Your task to perform on an android device: Show me popular games on the Play Store Image 0: 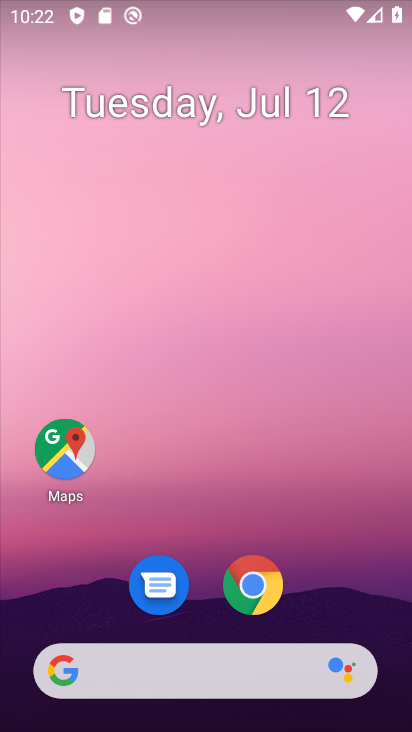
Step 0: drag from (278, 501) to (272, 37)
Your task to perform on an android device: Show me popular games on the Play Store Image 1: 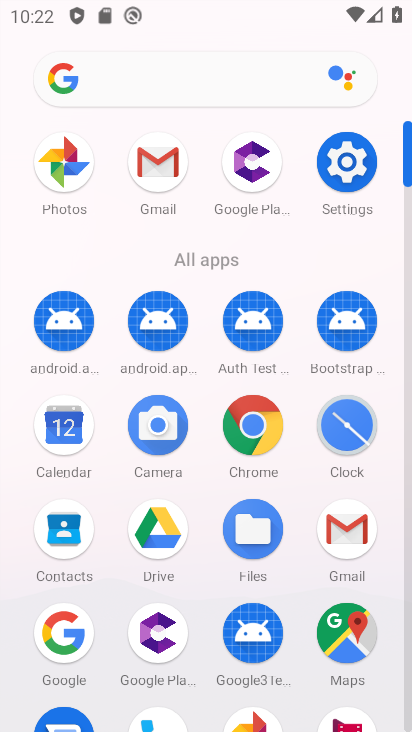
Step 1: drag from (202, 558) to (201, 171)
Your task to perform on an android device: Show me popular games on the Play Store Image 2: 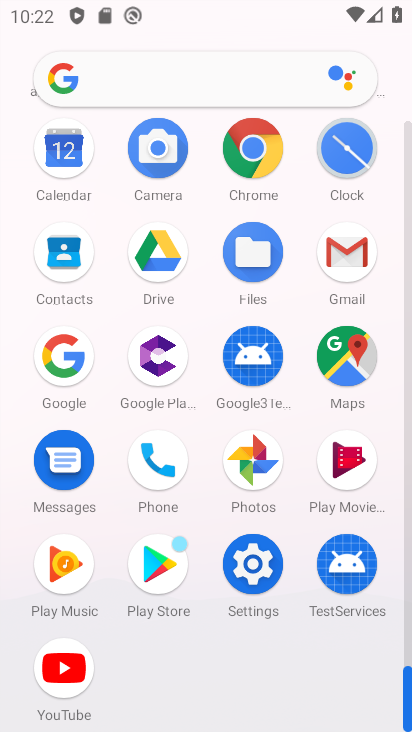
Step 2: click (175, 577)
Your task to perform on an android device: Show me popular games on the Play Store Image 3: 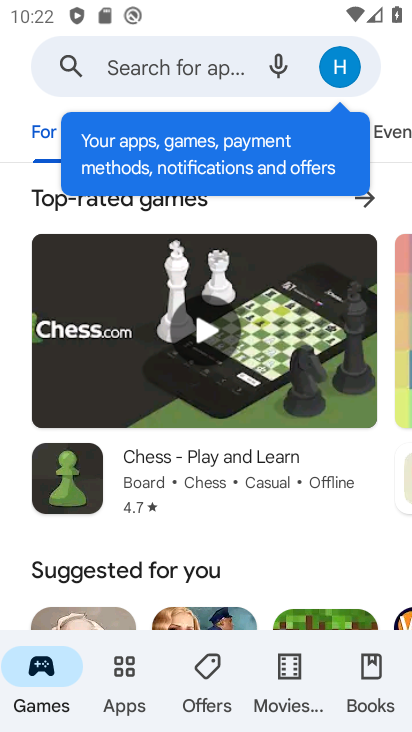
Step 3: drag from (250, 518) to (274, 237)
Your task to perform on an android device: Show me popular games on the Play Store Image 4: 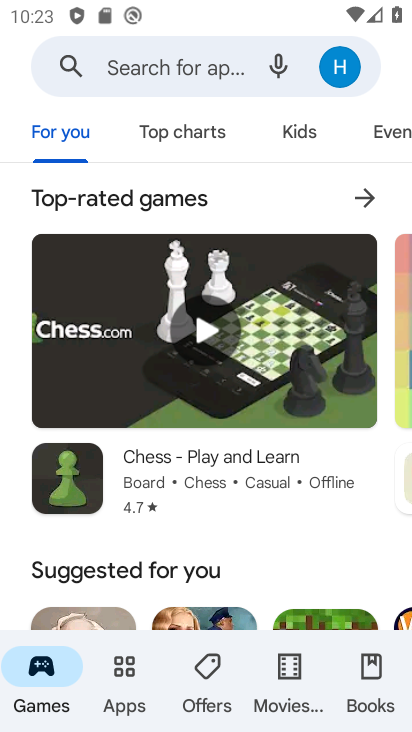
Step 4: drag from (279, 517) to (289, 114)
Your task to perform on an android device: Show me popular games on the Play Store Image 5: 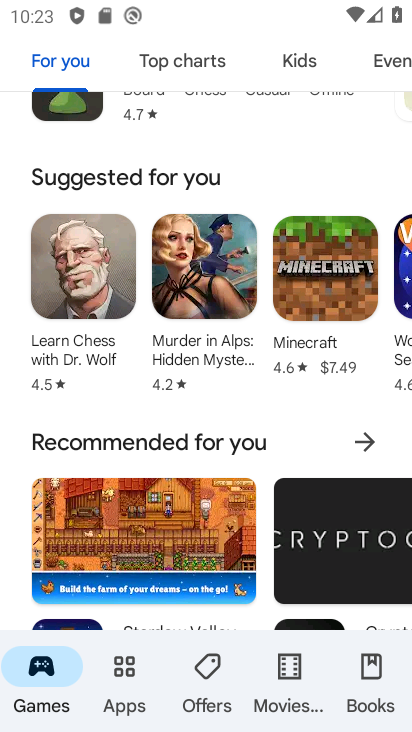
Step 5: drag from (283, 420) to (273, 79)
Your task to perform on an android device: Show me popular games on the Play Store Image 6: 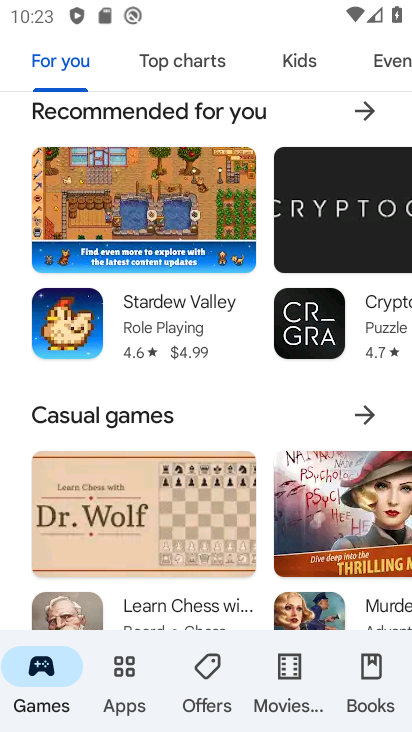
Step 6: drag from (236, 366) to (231, 105)
Your task to perform on an android device: Show me popular games on the Play Store Image 7: 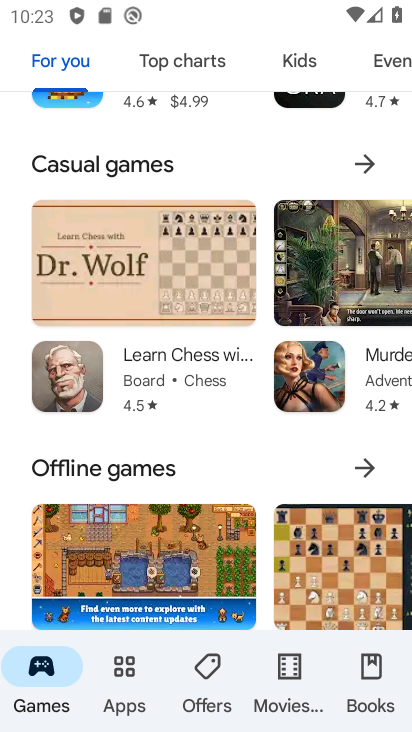
Step 7: drag from (236, 459) to (220, 115)
Your task to perform on an android device: Show me popular games on the Play Store Image 8: 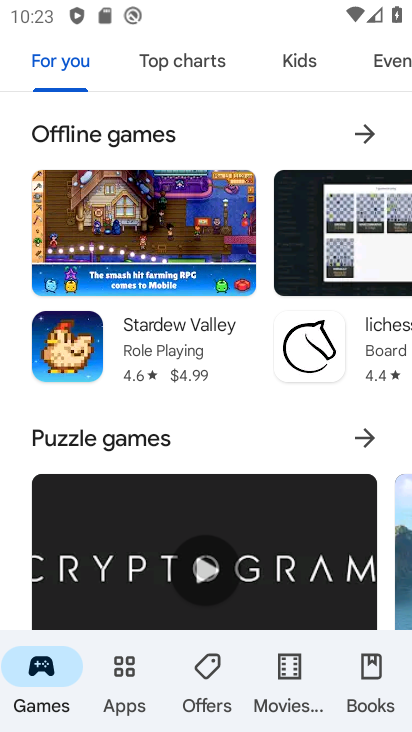
Step 8: drag from (231, 195) to (244, 476)
Your task to perform on an android device: Show me popular games on the Play Store Image 9: 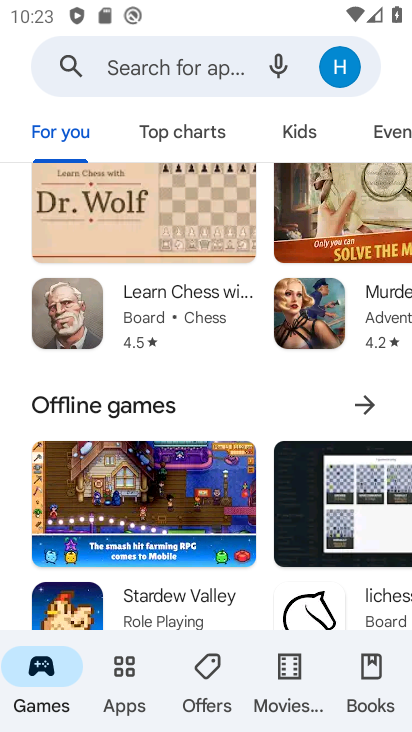
Step 9: drag from (247, 339) to (260, 591)
Your task to perform on an android device: Show me popular games on the Play Store Image 10: 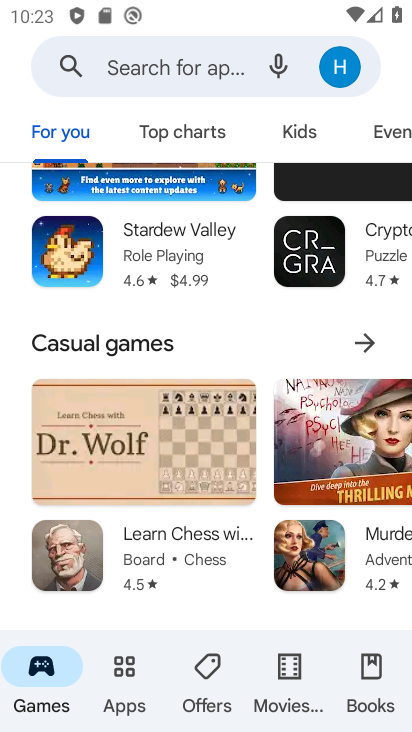
Step 10: drag from (245, 316) to (232, 606)
Your task to perform on an android device: Show me popular games on the Play Store Image 11: 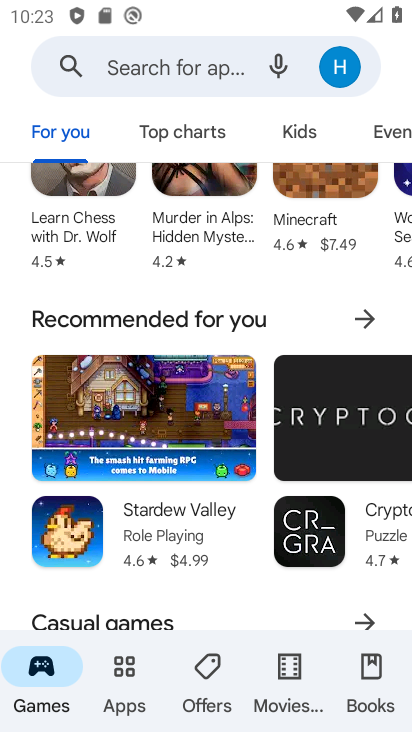
Step 11: drag from (264, 302) to (232, 654)
Your task to perform on an android device: Show me popular games on the Play Store Image 12: 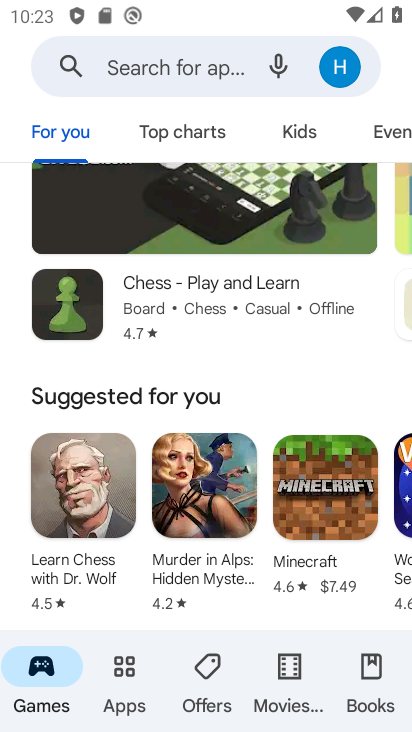
Step 12: drag from (273, 370) to (266, 648)
Your task to perform on an android device: Show me popular games on the Play Store Image 13: 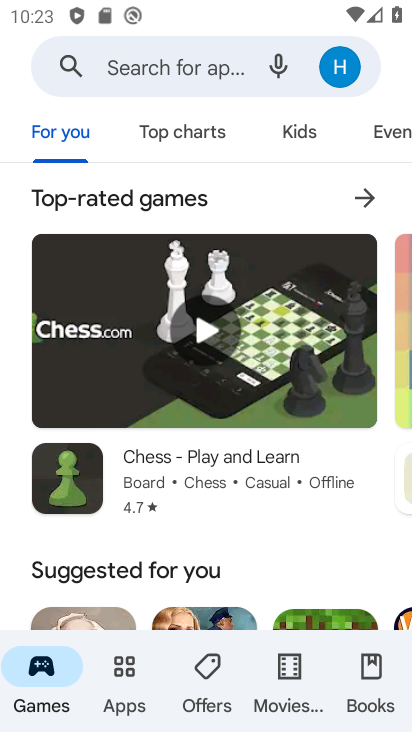
Step 13: click (363, 195)
Your task to perform on an android device: Show me popular games on the Play Store Image 14: 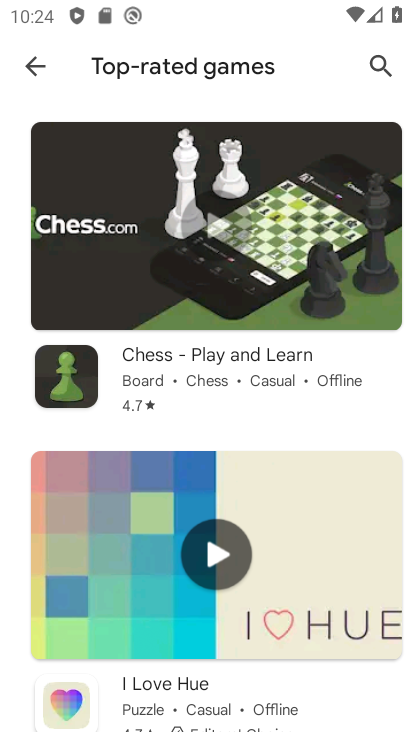
Step 14: task complete